Your task to perform on an android device: open app "DoorDash - Food Delivery" (install if not already installed) and go to login screen Image 0: 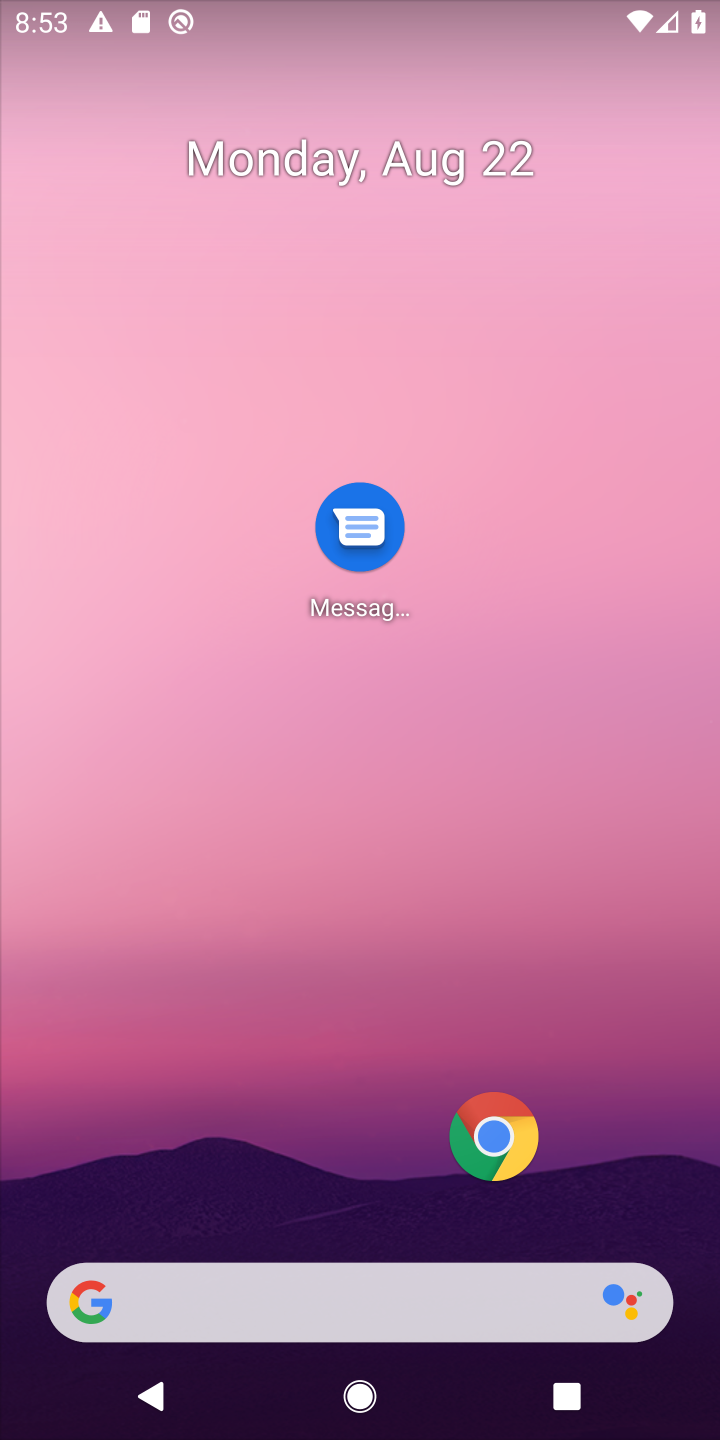
Step 0: drag from (330, 1245) to (339, 191)
Your task to perform on an android device: open app "DoorDash - Food Delivery" (install if not already installed) and go to login screen Image 1: 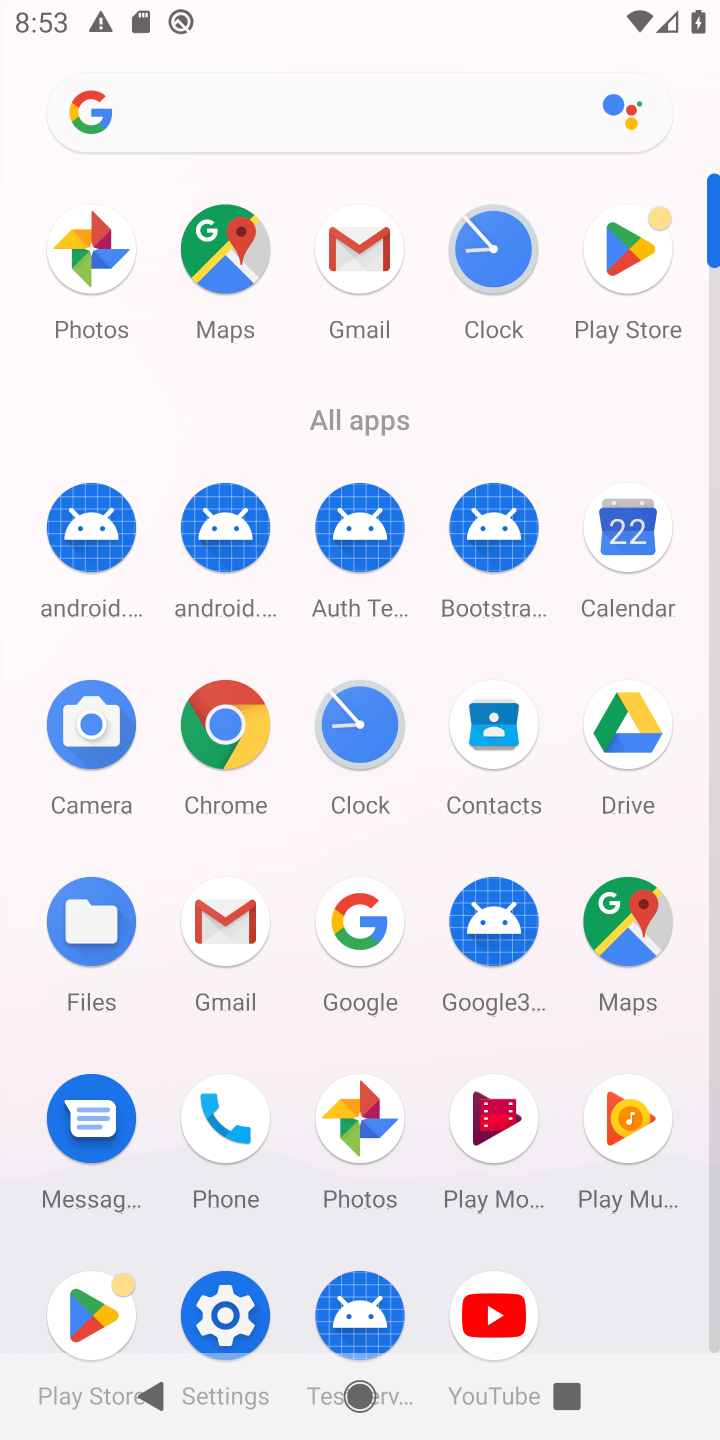
Step 1: click (623, 238)
Your task to perform on an android device: open app "DoorDash - Food Delivery" (install if not already installed) and go to login screen Image 2: 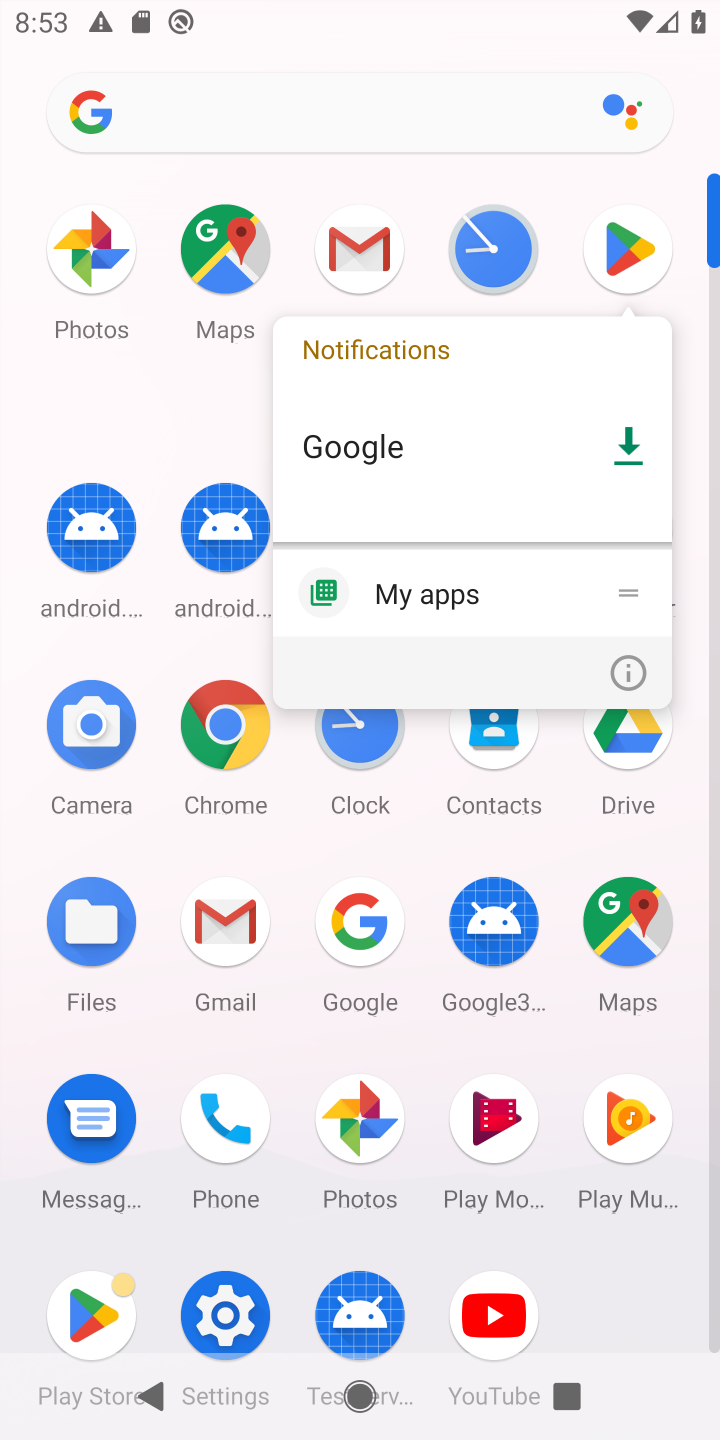
Step 2: click (623, 230)
Your task to perform on an android device: open app "DoorDash - Food Delivery" (install if not already installed) and go to login screen Image 3: 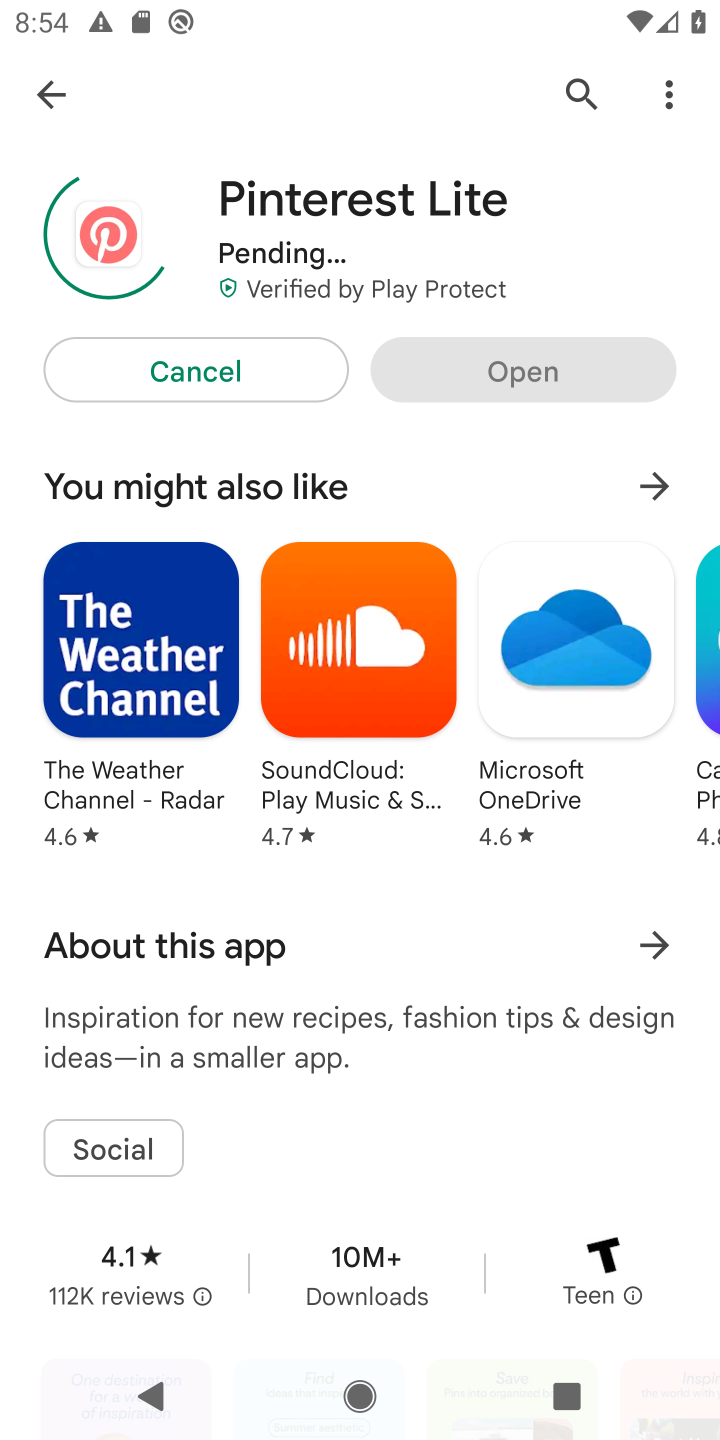
Step 3: click (45, 105)
Your task to perform on an android device: open app "DoorDash - Food Delivery" (install if not already installed) and go to login screen Image 4: 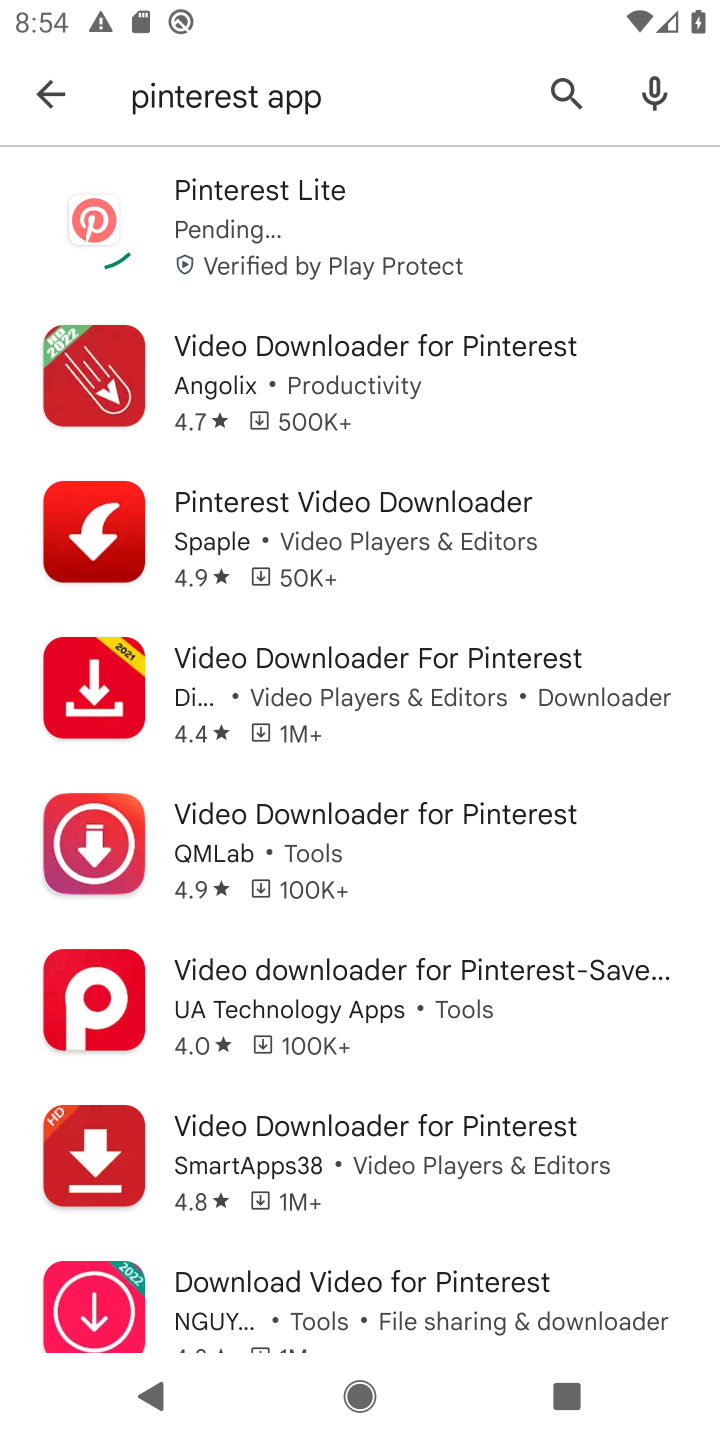
Step 4: click (40, 104)
Your task to perform on an android device: open app "DoorDash - Food Delivery" (install if not already installed) and go to login screen Image 5: 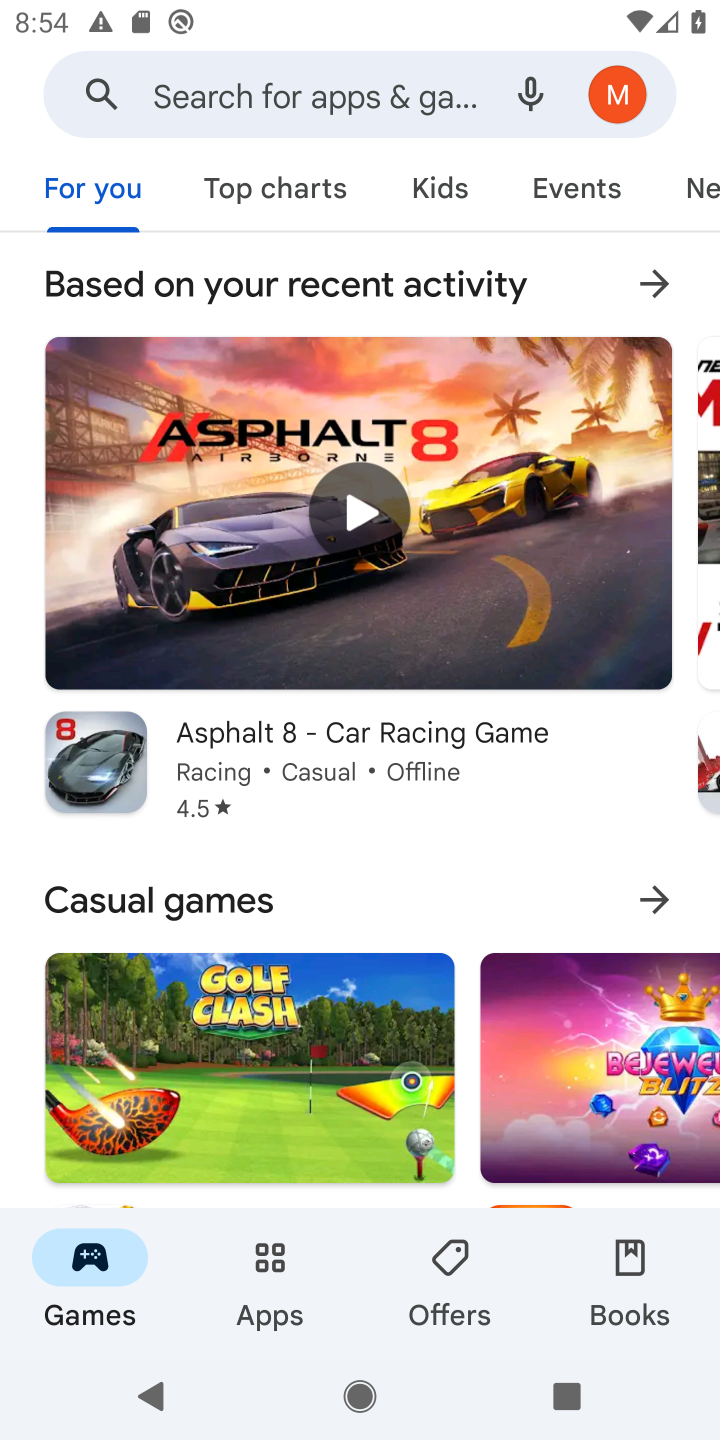
Step 5: click (364, 83)
Your task to perform on an android device: open app "DoorDash - Food Delivery" (install if not already installed) and go to login screen Image 6: 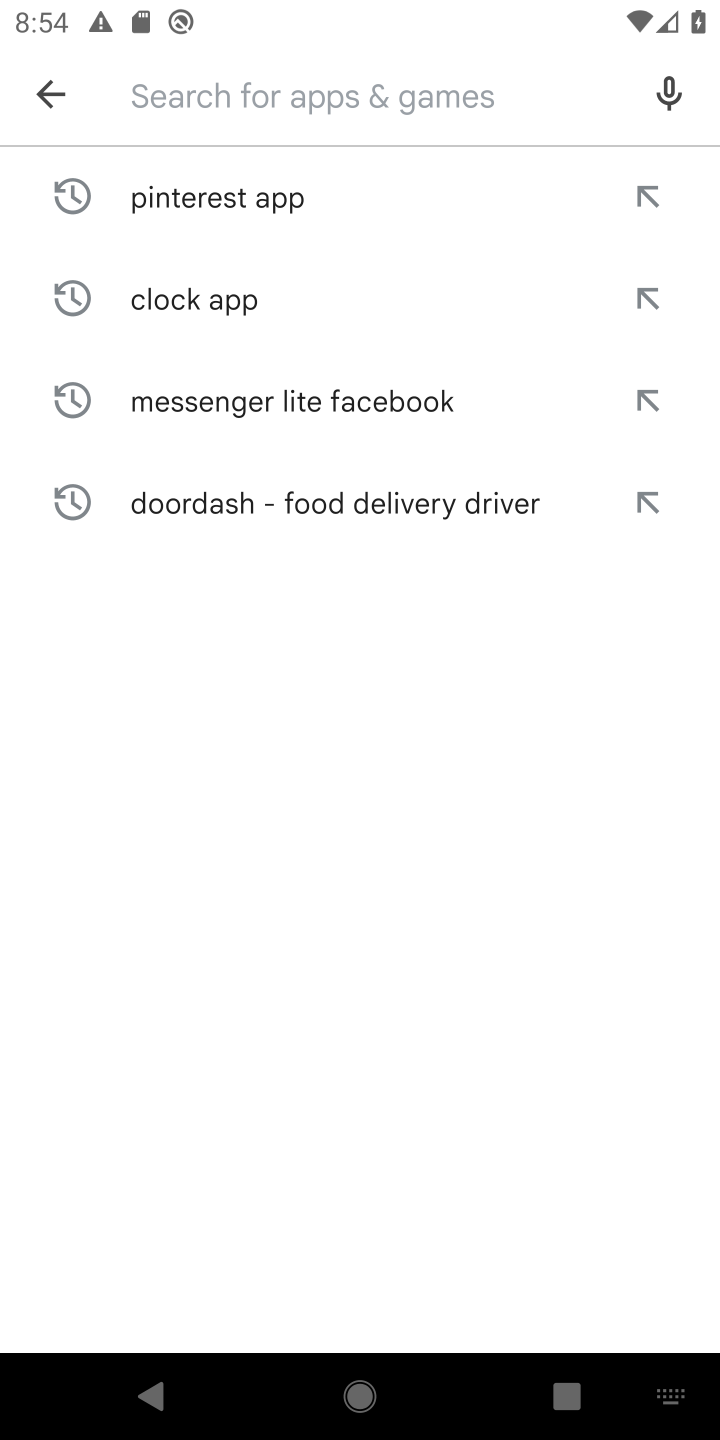
Step 6: type "DoorDash - Food Delivery "
Your task to perform on an android device: open app "DoorDash - Food Delivery" (install if not already installed) and go to login screen Image 7: 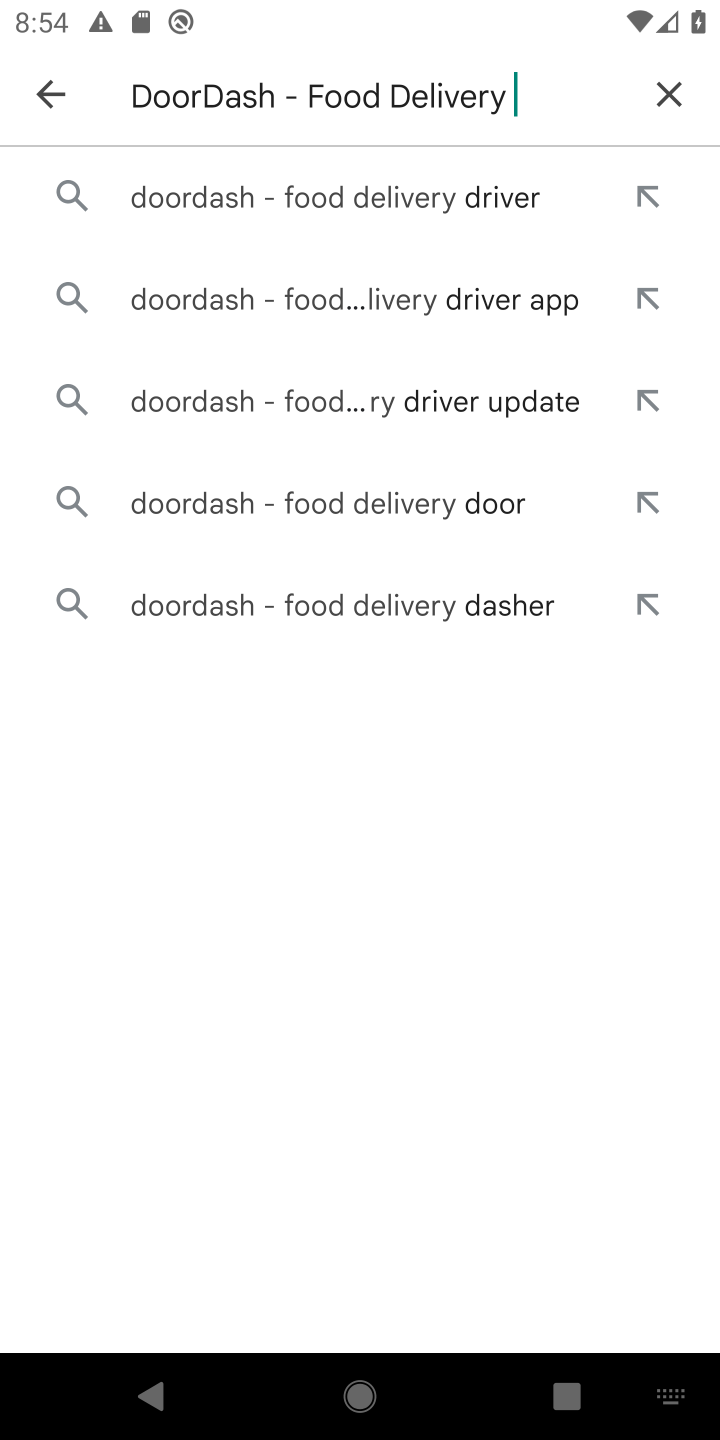
Step 7: click (354, 174)
Your task to perform on an android device: open app "DoorDash - Food Delivery" (install if not already installed) and go to login screen Image 8: 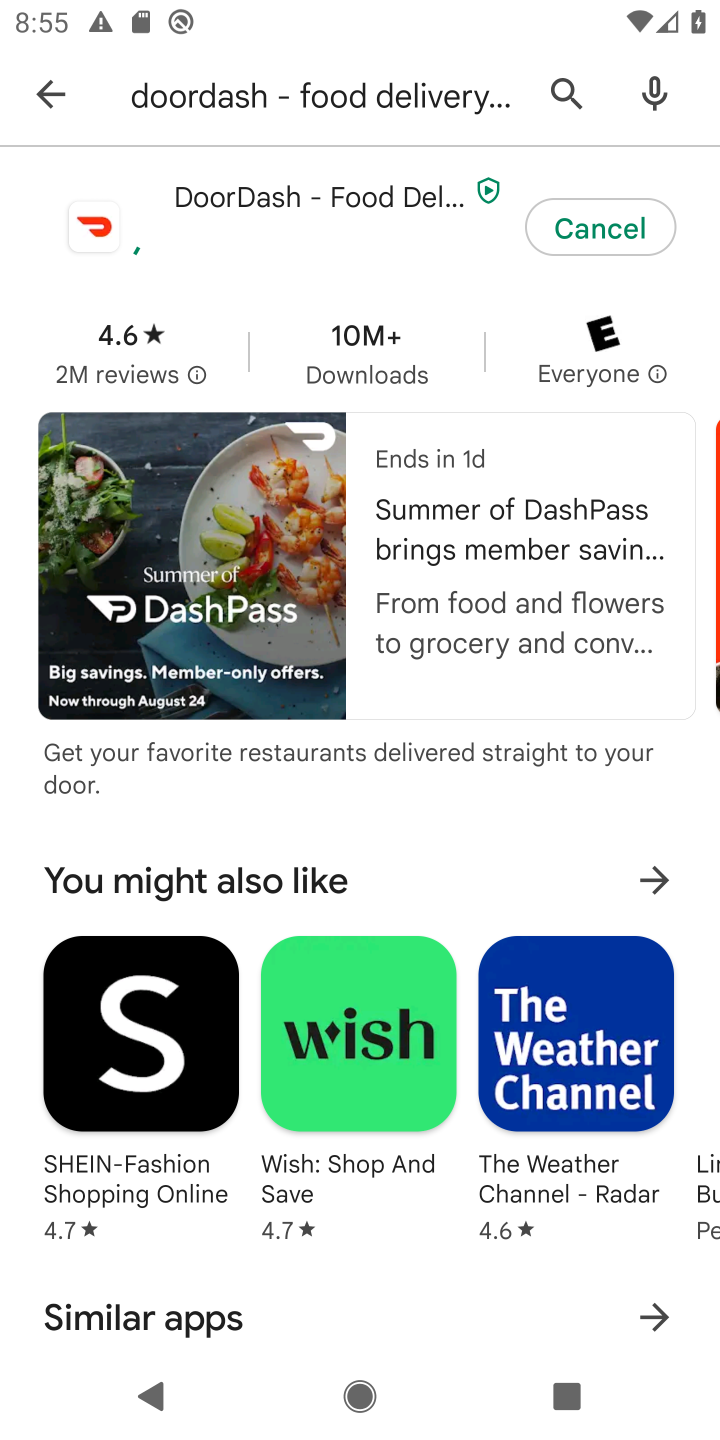
Step 8: task complete